Your task to perform on an android device: Check the news Image 0: 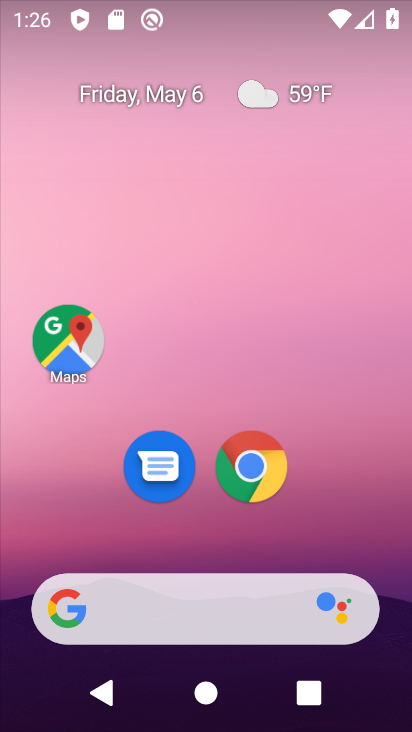
Step 0: drag from (17, 404) to (403, 378)
Your task to perform on an android device: Check the news Image 1: 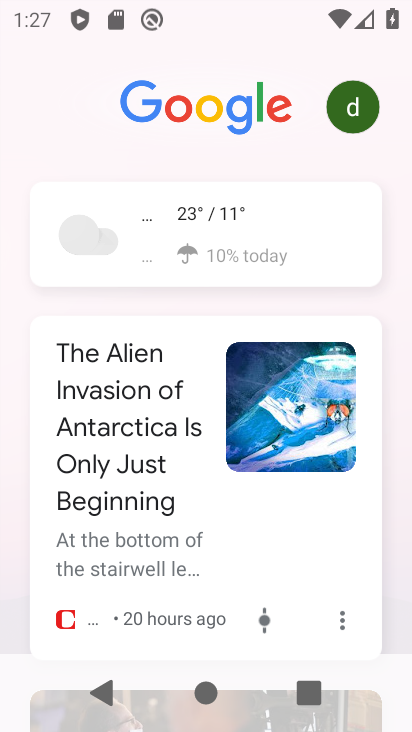
Step 1: task complete